Your task to perform on an android device: check data usage Image 0: 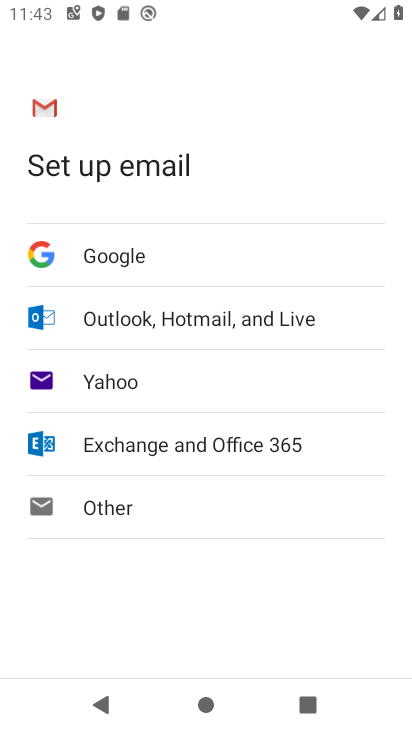
Step 0: press home button
Your task to perform on an android device: check data usage Image 1: 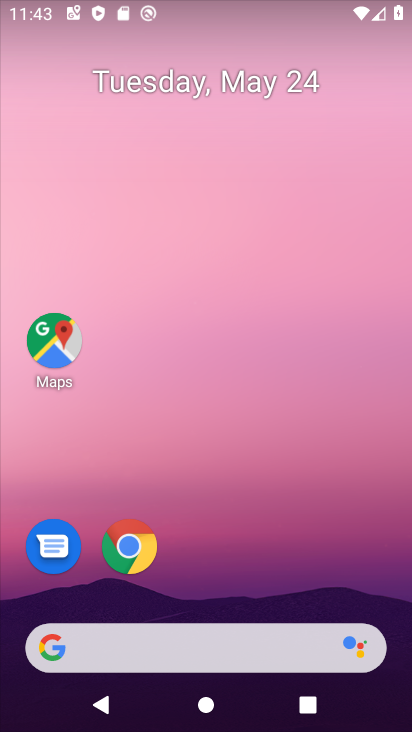
Step 1: drag from (264, 595) to (243, 276)
Your task to perform on an android device: check data usage Image 2: 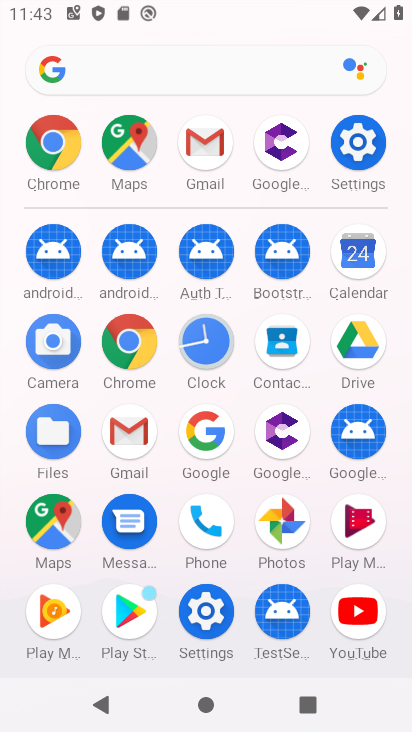
Step 2: click (350, 152)
Your task to perform on an android device: check data usage Image 3: 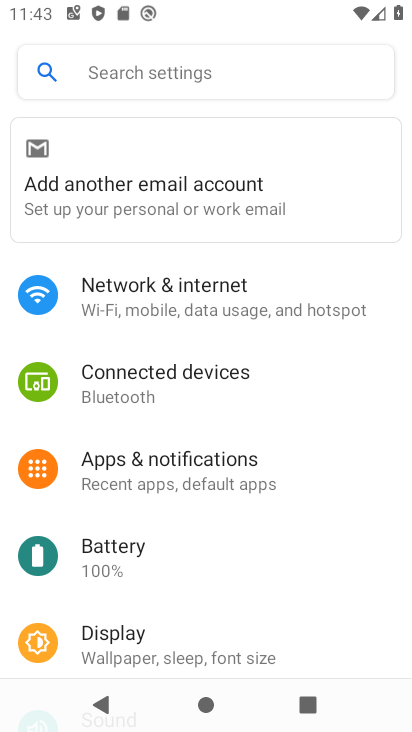
Step 3: click (253, 303)
Your task to perform on an android device: check data usage Image 4: 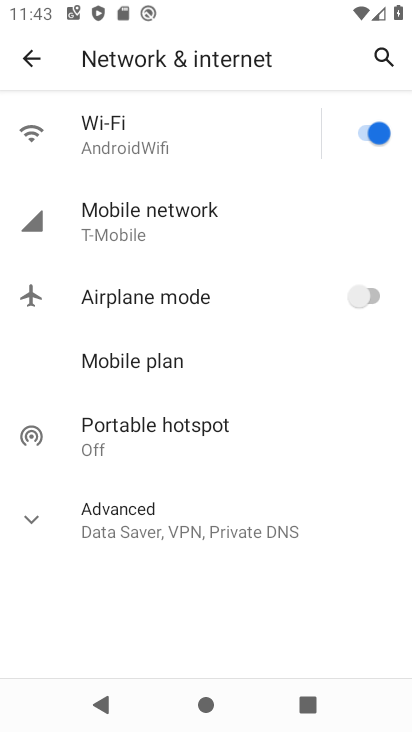
Step 4: click (147, 145)
Your task to perform on an android device: check data usage Image 5: 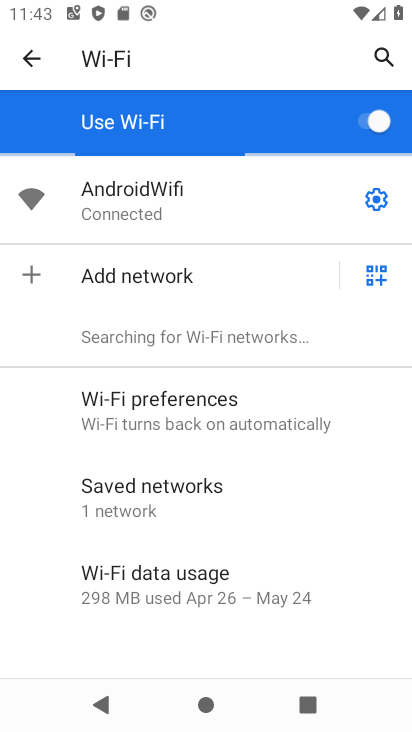
Step 5: click (199, 578)
Your task to perform on an android device: check data usage Image 6: 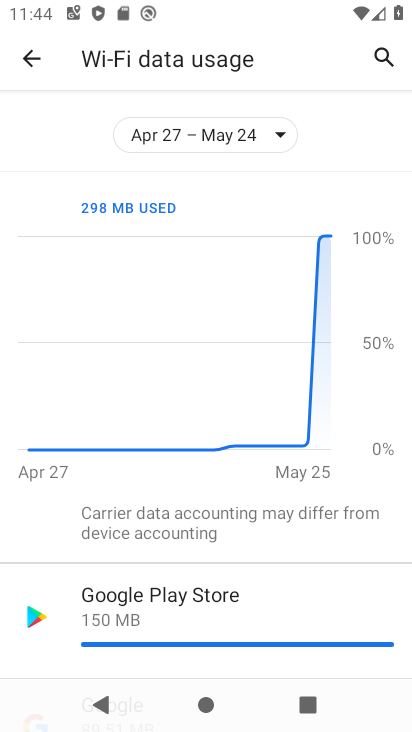
Step 6: task complete